Your task to perform on an android device: Install the Amazon app Image 0: 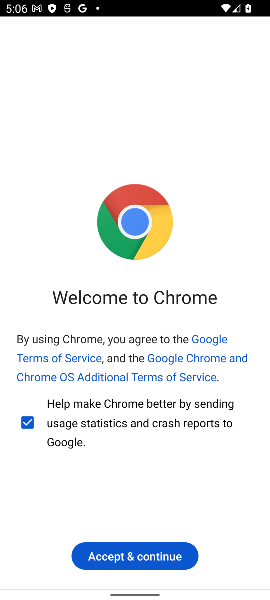
Step 0: press home button
Your task to perform on an android device: Install the Amazon app Image 1: 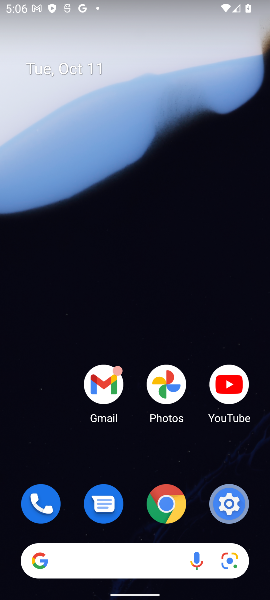
Step 1: drag from (59, 471) to (120, 3)
Your task to perform on an android device: Install the Amazon app Image 2: 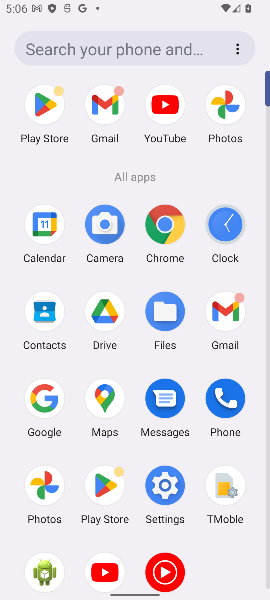
Step 2: click (44, 110)
Your task to perform on an android device: Install the Amazon app Image 3: 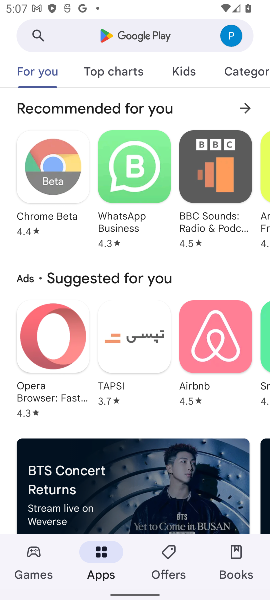
Step 3: click (149, 35)
Your task to perform on an android device: Install the Amazon app Image 4: 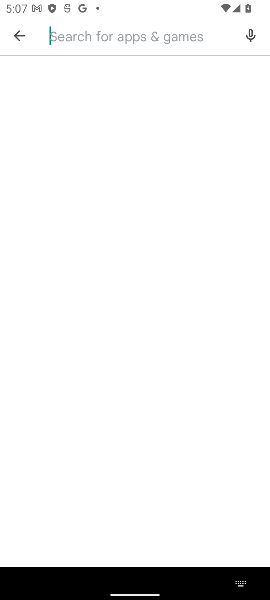
Step 4: type "amazon app"
Your task to perform on an android device: Install the Amazon app Image 5: 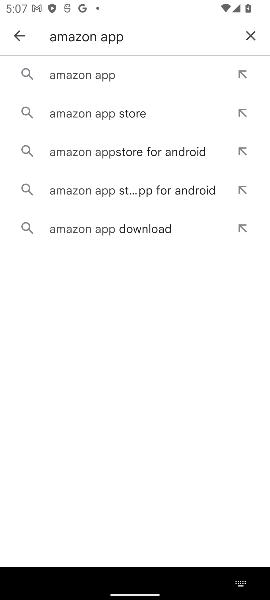
Step 5: click (98, 72)
Your task to perform on an android device: Install the Amazon app Image 6: 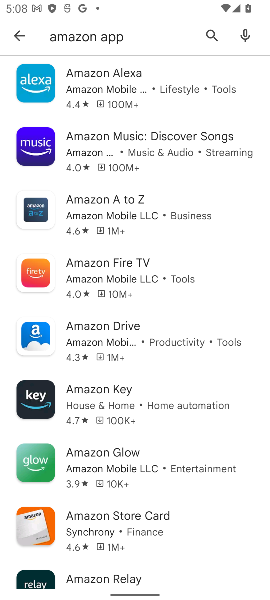
Step 6: click (147, 77)
Your task to perform on an android device: Install the Amazon app Image 7: 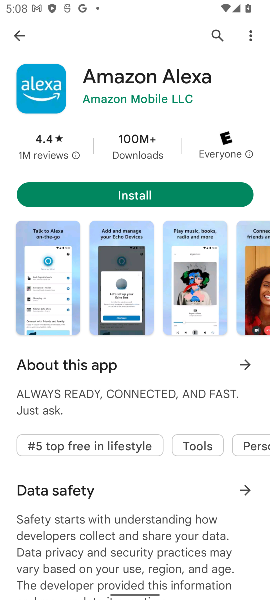
Step 7: task complete